Your task to perform on an android device: change the clock display to analog Image 0: 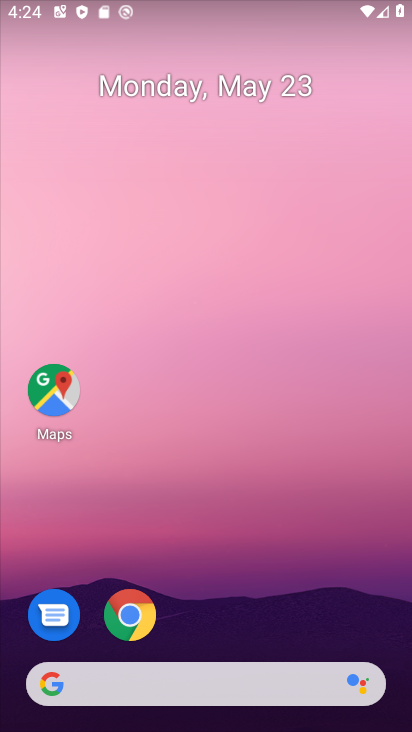
Step 0: drag from (242, 624) to (207, 108)
Your task to perform on an android device: change the clock display to analog Image 1: 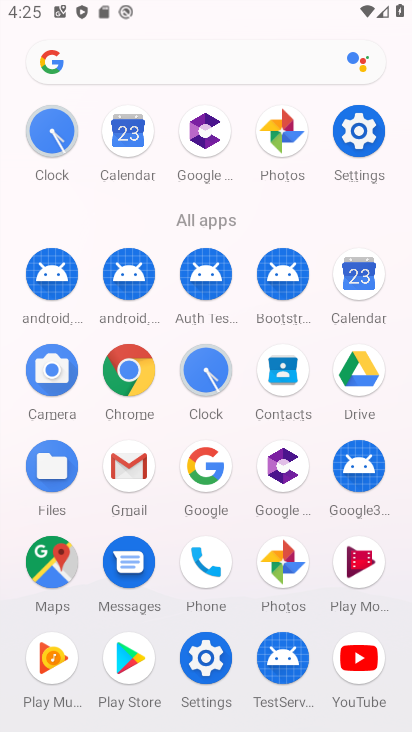
Step 1: click (214, 357)
Your task to perform on an android device: change the clock display to analog Image 2: 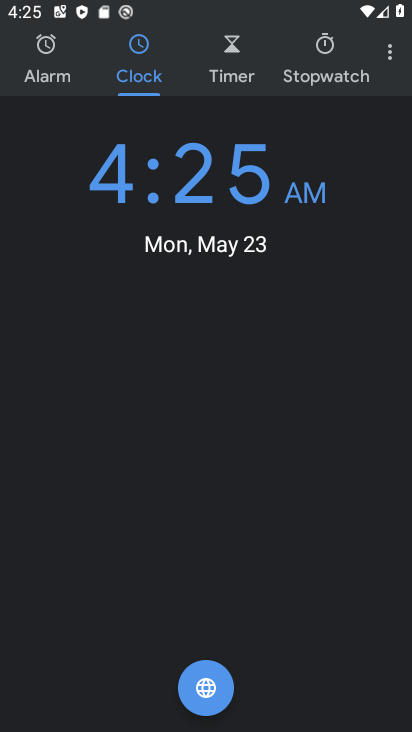
Step 2: click (387, 55)
Your task to perform on an android device: change the clock display to analog Image 3: 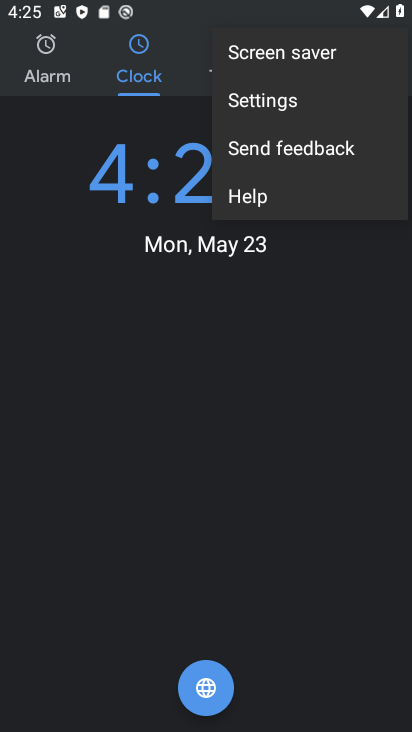
Step 3: click (272, 113)
Your task to perform on an android device: change the clock display to analog Image 4: 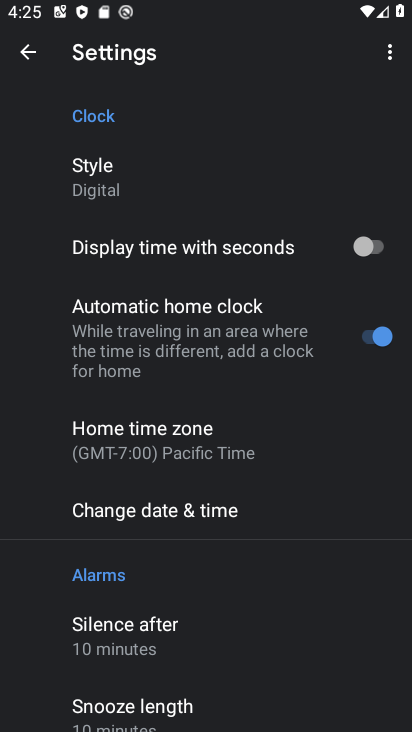
Step 4: click (111, 170)
Your task to perform on an android device: change the clock display to analog Image 5: 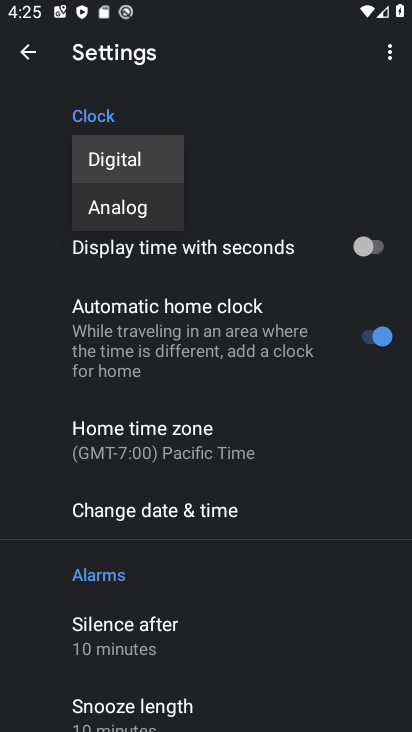
Step 5: click (142, 206)
Your task to perform on an android device: change the clock display to analog Image 6: 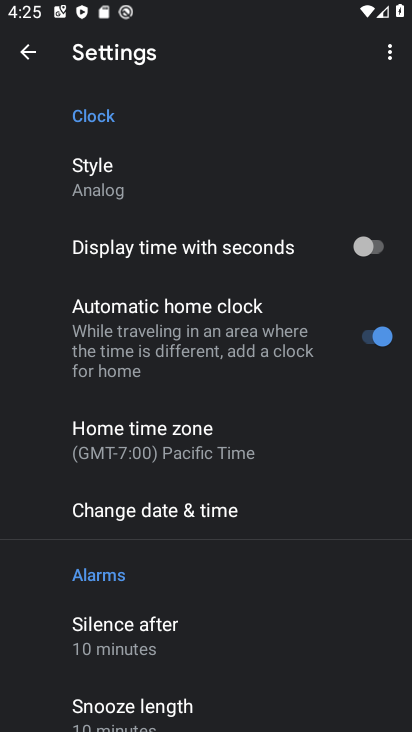
Step 6: task complete